Your task to perform on an android device: empty trash in google photos Image 0: 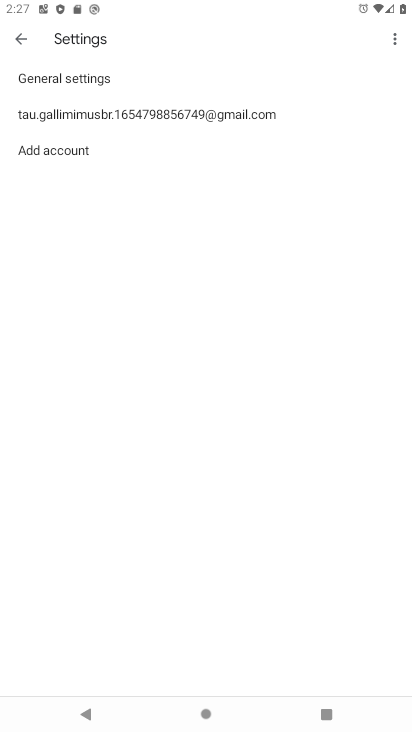
Step 0: press home button
Your task to perform on an android device: empty trash in google photos Image 1: 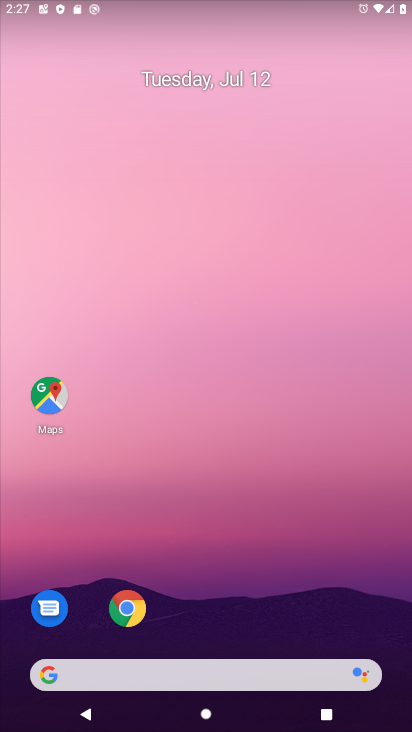
Step 1: drag from (287, 590) to (150, 84)
Your task to perform on an android device: empty trash in google photos Image 2: 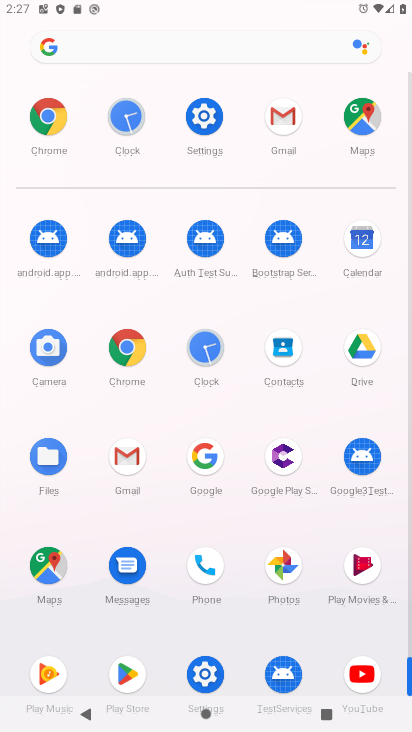
Step 2: click (288, 556)
Your task to perform on an android device: empty trash in google photos Image 3: 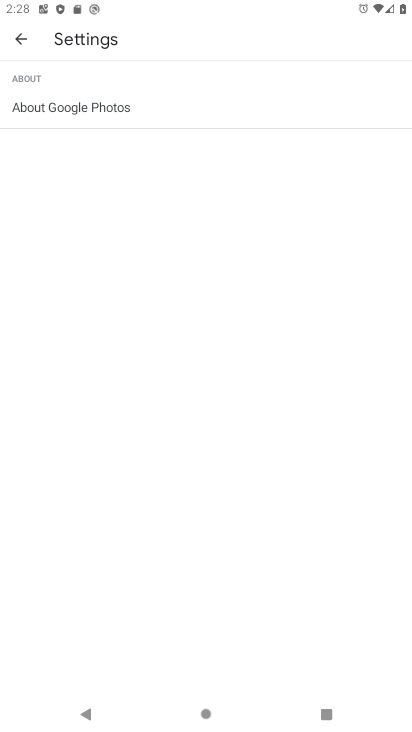
Step 3: click (14, 35)
Your task to perform on an android device: empty trash in google photos Image 4: 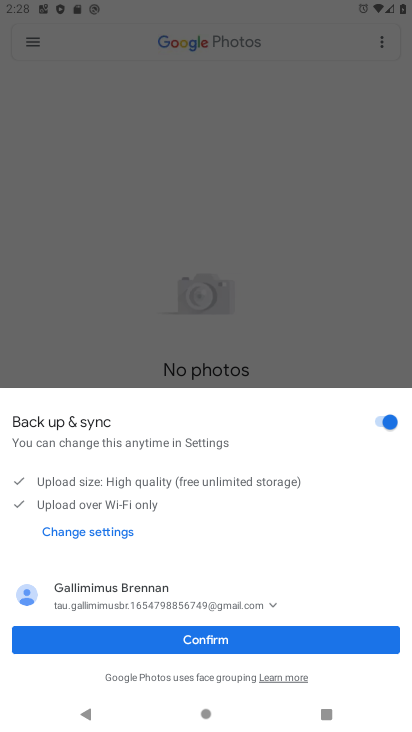
Step 4: click (262, 646)
Your task to perform on an android device: empty trash in google photos Image 5: 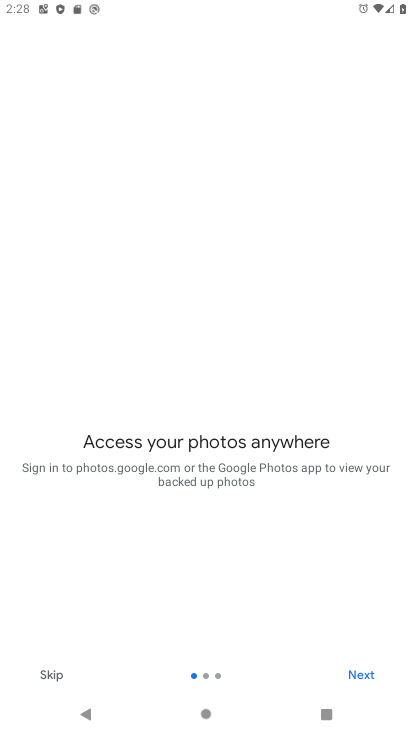
Step 5: click (367, 678)
Your task to perform on an android device: empty trash in google photos Image 6: 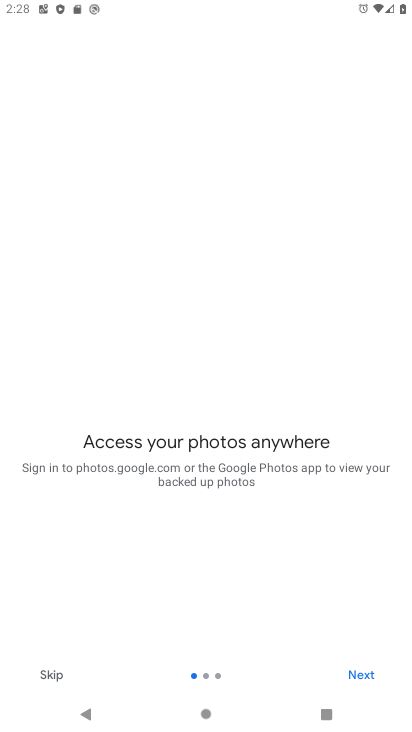
Step 6: click (366, 677)
Your task to perform on an android device: empty trash in google photos Image 7: 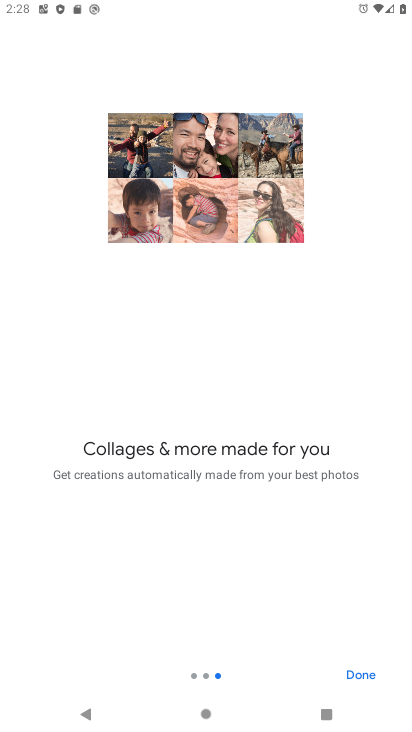
Step 7: click (365, 676)
Your task to perform on an android device: empty trash in google photos Image 8: 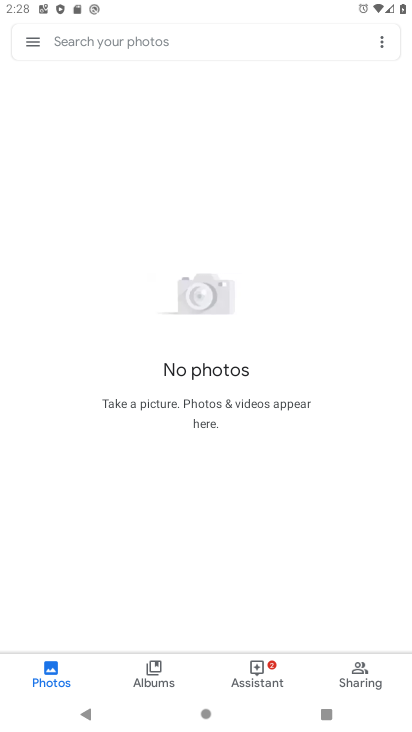
Step 8: click (365, 676)
Your task to perform on an android device: empty trash in google photos Image 9: 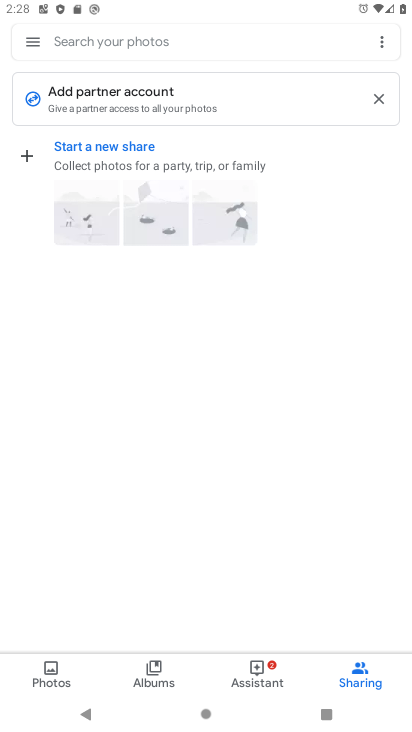
Step 9: click (32, 44)
Your task to perform on an android device: empty trash in google photos Image 10: 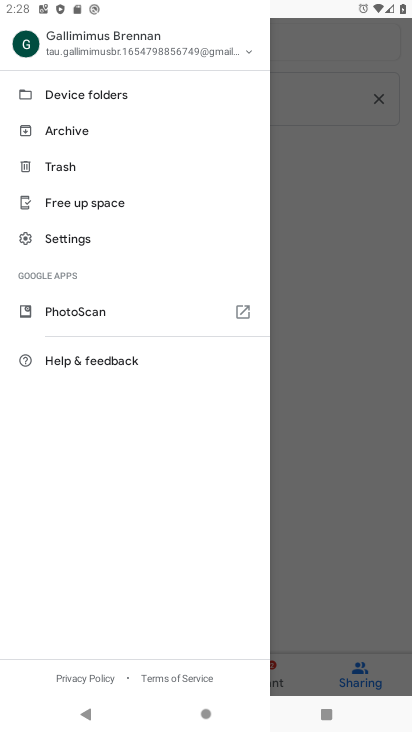
Step 10: click (65, 158)
Your task to perform on an android device: empty trash in google photos Image 11: 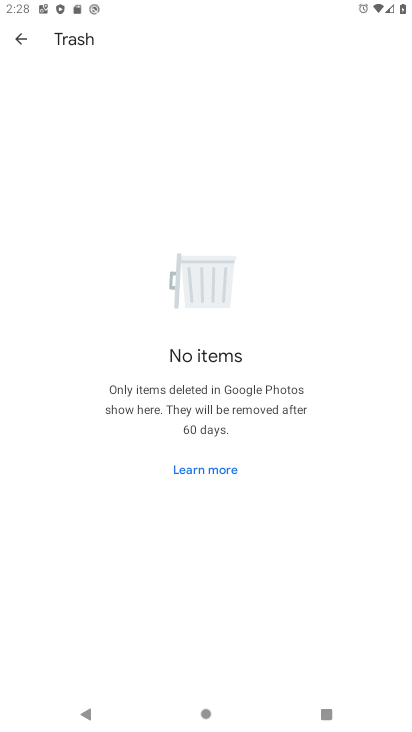
Step 11: task complete